Your task to perform on an android device: Open the web browser Image 0: 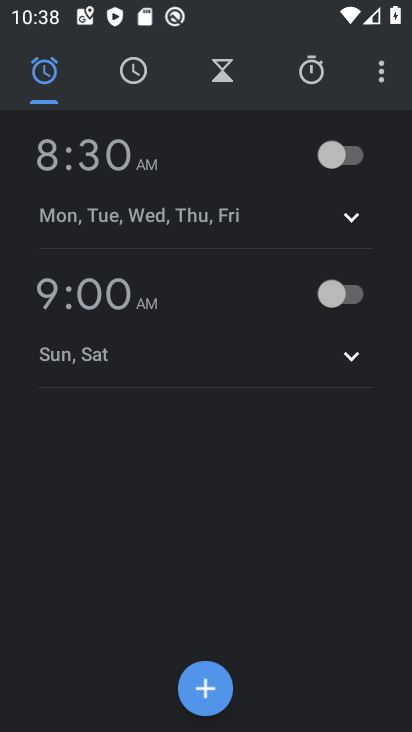
Step 0: press home button
Your task to perform on an android device: Open the web browser Image 1: 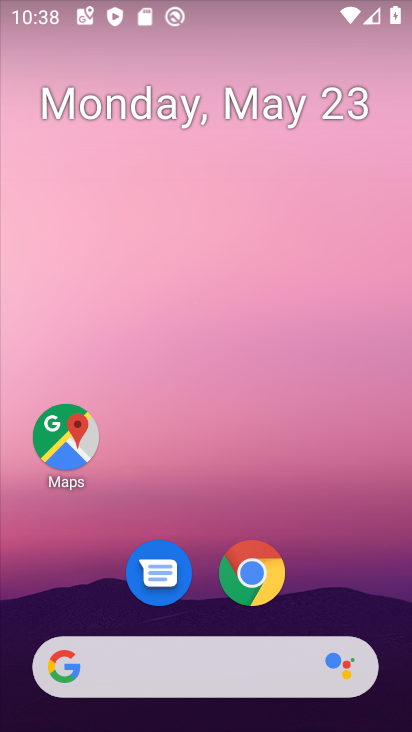
Step 1: drag from (211, 662) to (316, 133)
Your task to perform on an android device: Open the web browser Image 2: 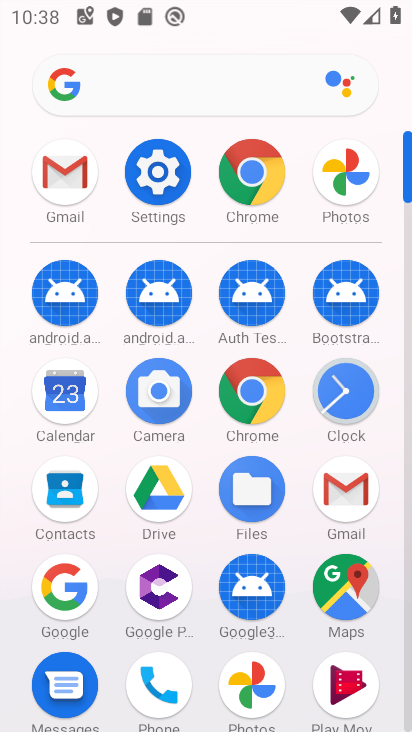
Step 2: drag from (289, 441) to (379, 204)
Your task to perform on an android device: Open the web browser Image 3: 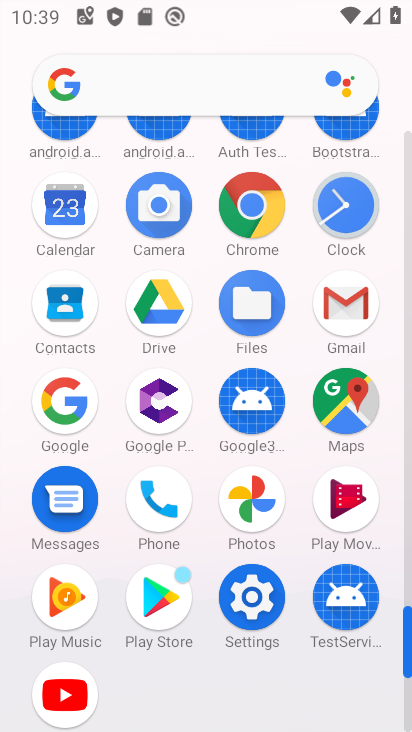
Step 3: click (256, 219)
Your task to perform on an android device: Open the web browser Image 4: 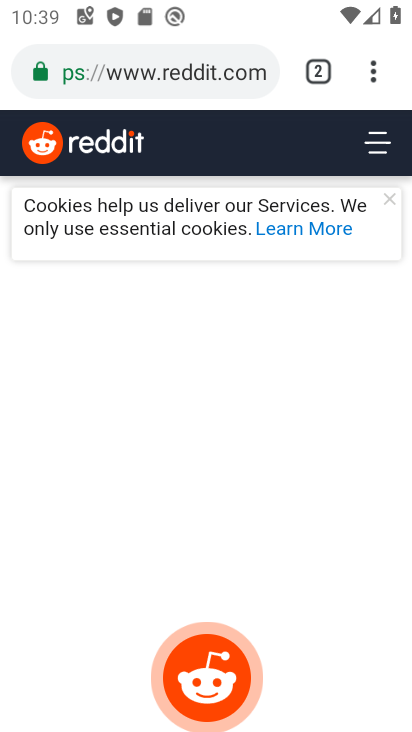
Step 4: task complete